Your task to perform on an android device: turn off improve location accuracy Image 0: 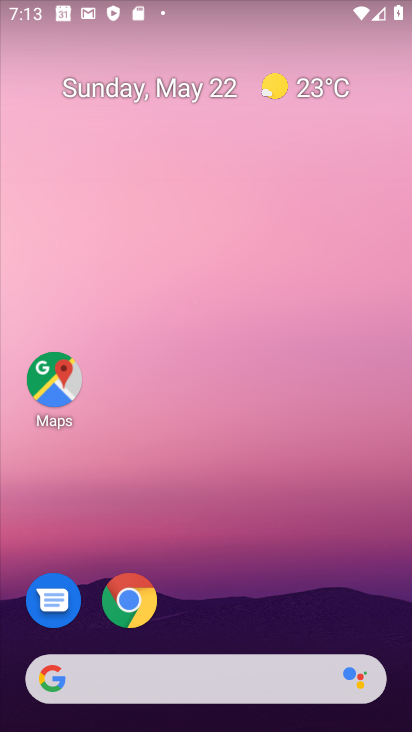
Step 0: drag from (382, 628) to (329, 17)
Your task to perform on an android device: turn off improve location accuracy Image 1: 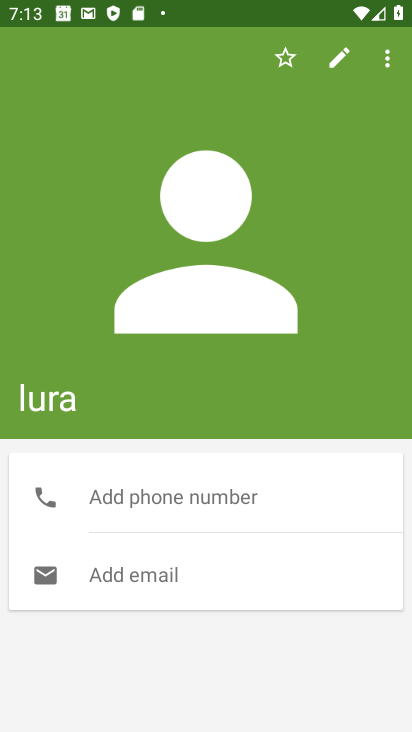
Step 1: press home button
Your task to perform on an android device: turn off improve location accuracy Image 2: 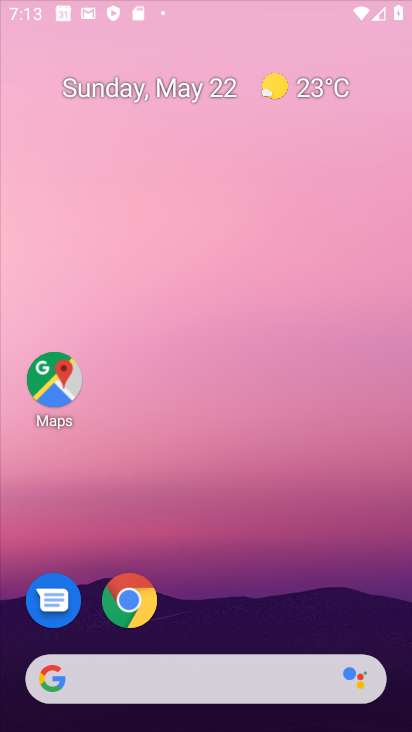
Step 2: drag from (391, 662) to (239, 5)
Your task to perform on an android device: turn off improve location accuracy Image 3: 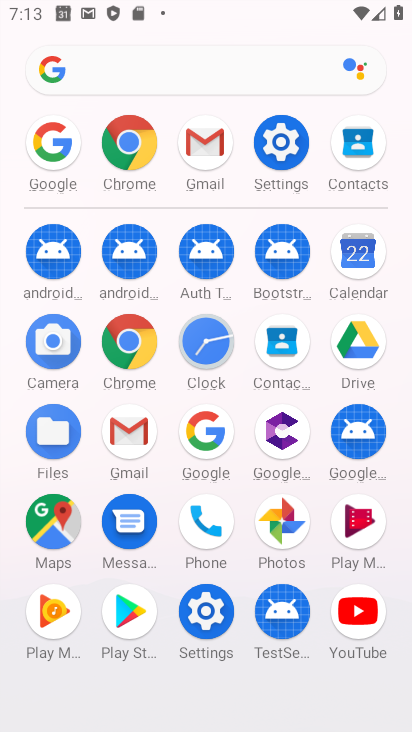
Step 3: click (287, 145)
Your task to perform on an android device: turn off improve location accuracy Image 4: 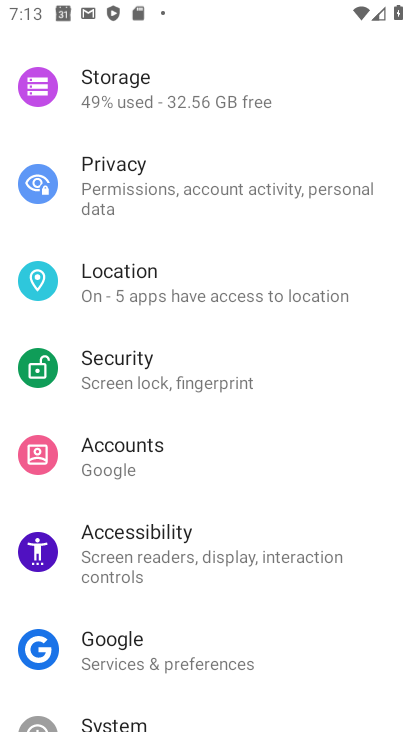
Step 4: click (158, 287)
Your task to perform on an android device: turn off improve location accuracy Image 5: 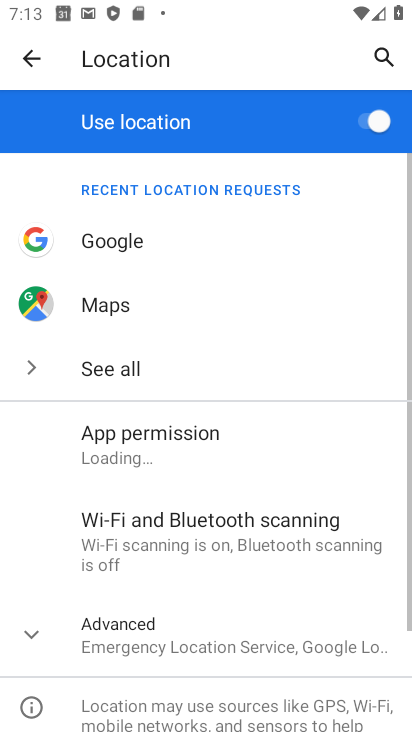
Step 5: click (187, 638)
Your task to perform on an android device: turn off improve location accuracy Image 6: 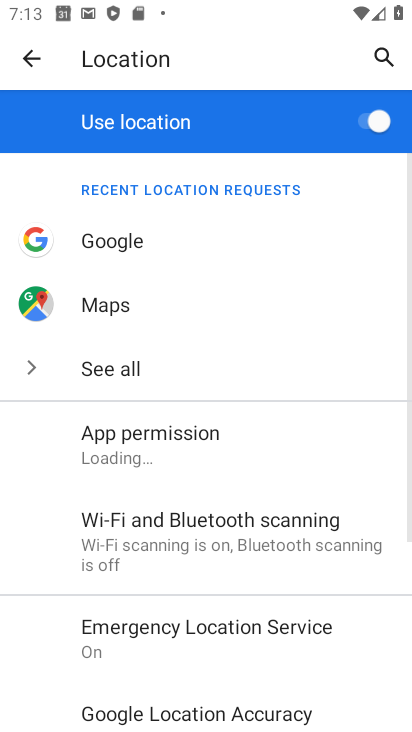
Step 6: click (238, 715)
Your task to perform on an android device: turn off improve location accuracy Image 7: 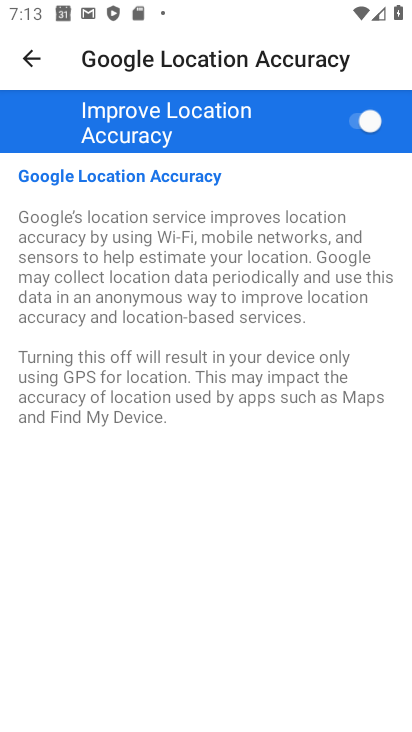
Step 7: click (364, 128)
Your task to perform on an android device: turn off improve location accuracy Image 8: 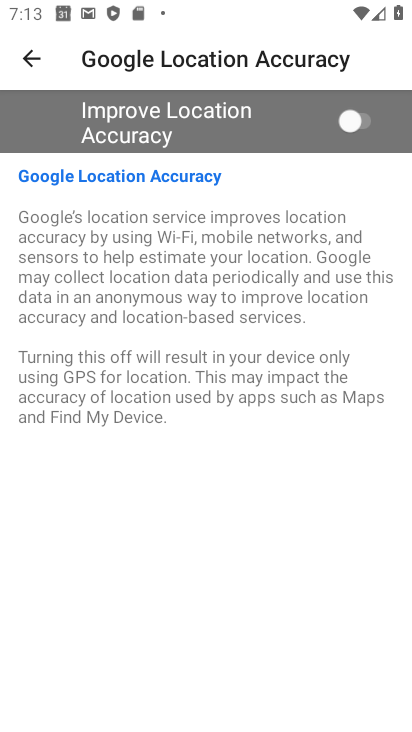
Step 8: task complete